Your task to perform on an android device: Go to sound settings Image 0: 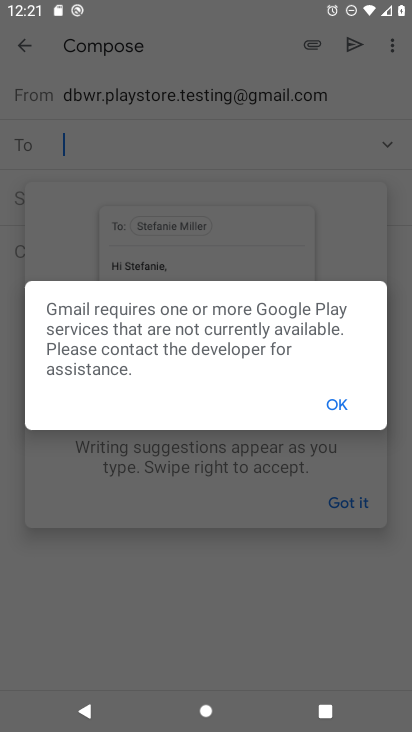
Step 0: press home button
Your task to perform on an android device: Go to sound settings Image 1: 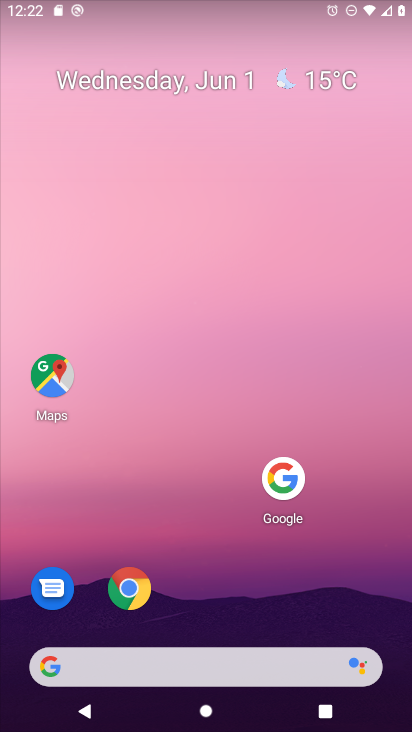
Step 1: drag from (173, 660) to (287, 115)
Your task to perform on an android device: Go to sound settings Image 2: 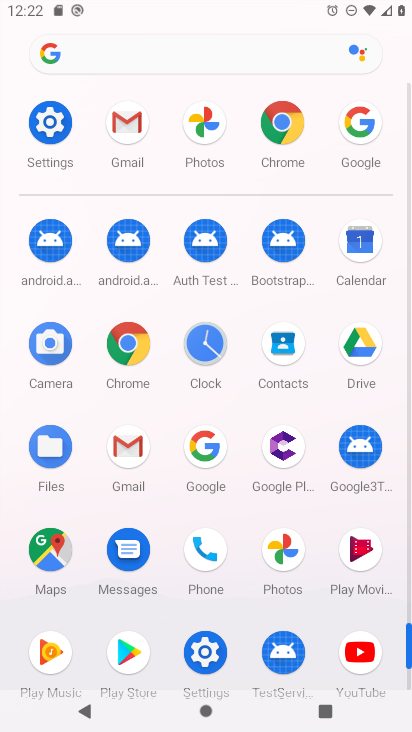
Step 2: click (57, 129)
Your task to perform on an android device: Go to sound settings Image 3: 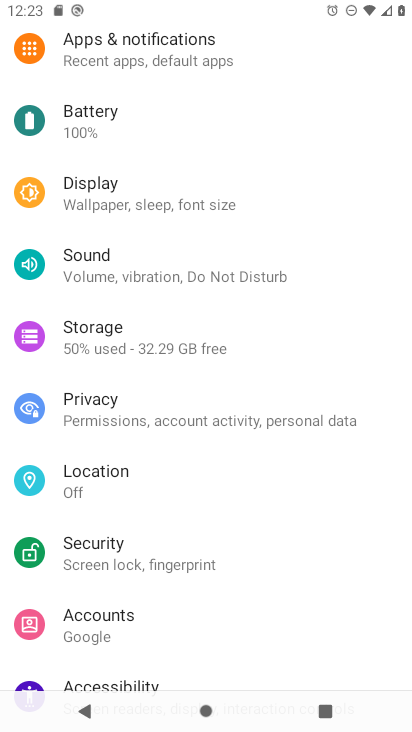
Step 3: click (128, 277)
Your task to perform on an android device: Go to sound settings Image 4: 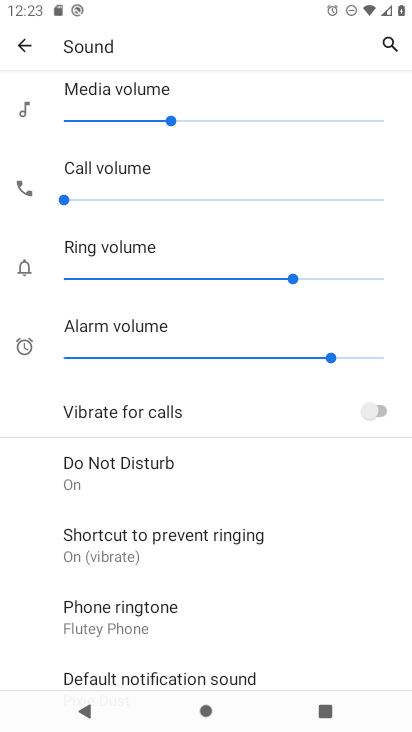
Step 4: task complete